Your task to perform on an android device: turn off sleep mode Image 0: 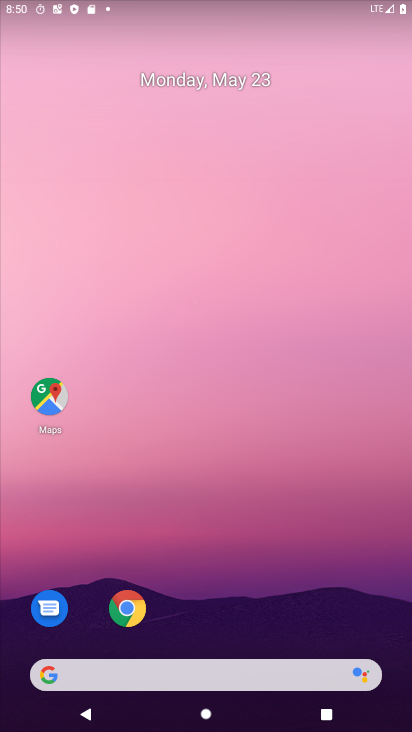
Step 0: drag from (220, 675) to (217, 130)
Your task to perform on an android device: turn off sleep mode Image 1: 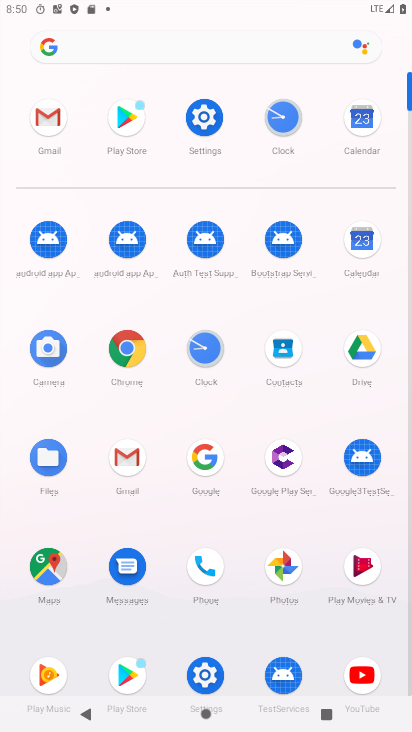
Step 1: click (198, 101)
Your task to perform on an android device: turn off sleep mode Image 2: 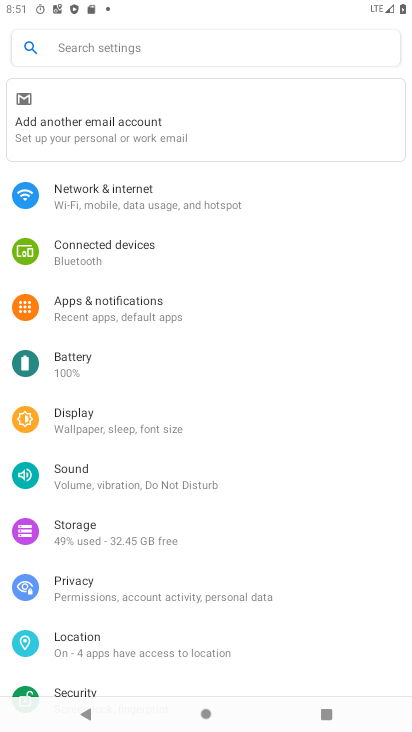
Step 2: click (137, 424)
Your task to perform on an android device: turn off sleep mode Image 3: 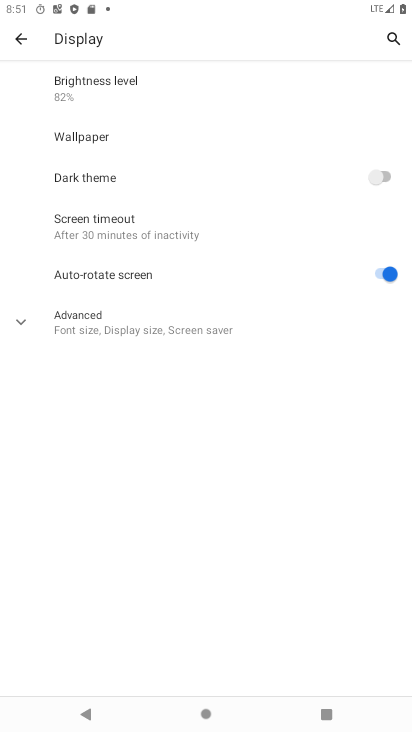
Step 3: click (166, 305)
Your task to perform on an android device: turn off sleep mode Image 4: 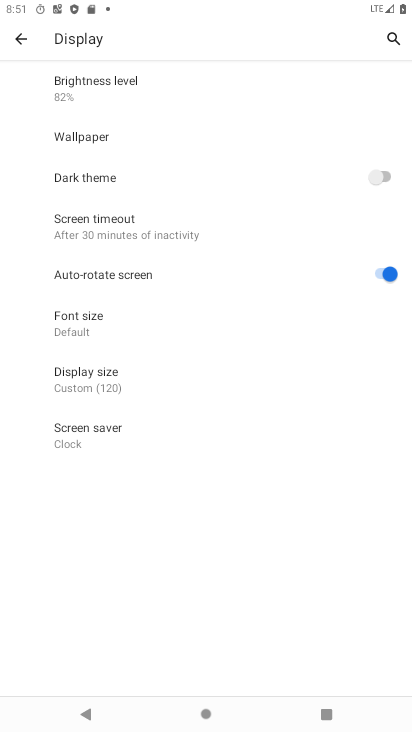
Step 4: task complete